Your task to perform on an android device: What's on my calendar tomorrow? Image 0: 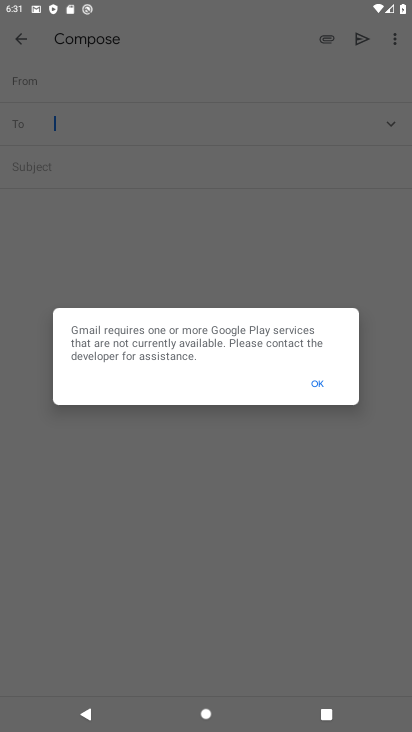
Step 0: press home button
Your task to perform on an android device: What's on my calendar tomorrow? Image 1: 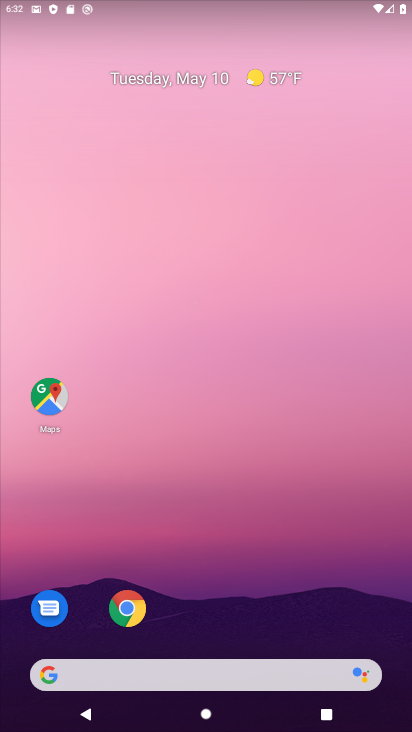
Step 1: drag from (300, 625) to (296, 3)
Your task to perform on an android device: What's on my calendar tomorrow? Image 2: 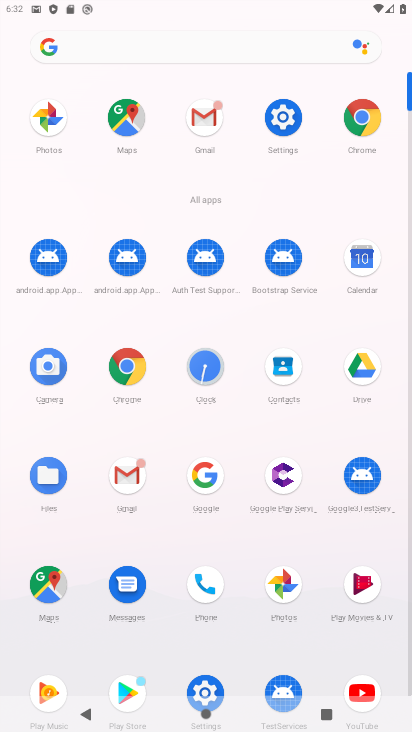
Step 2: click (360, 266)
Your task to perform on an android device: What's on my calendar tomorrow? Image 3: 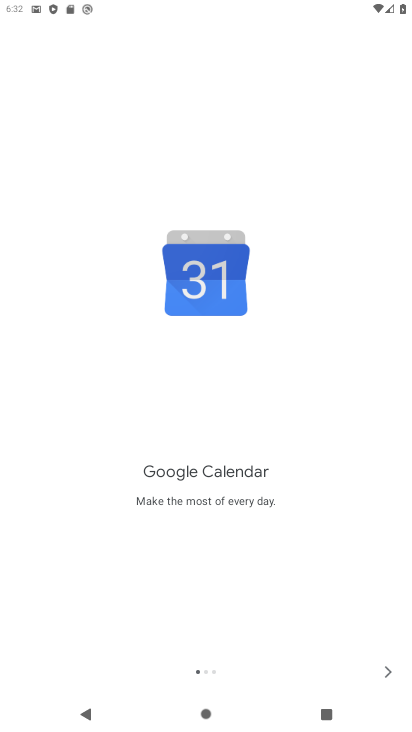
Step 3: click (389, 664)
Your task to perform on an android device: What's on my calendar tomorrow? Image 4: 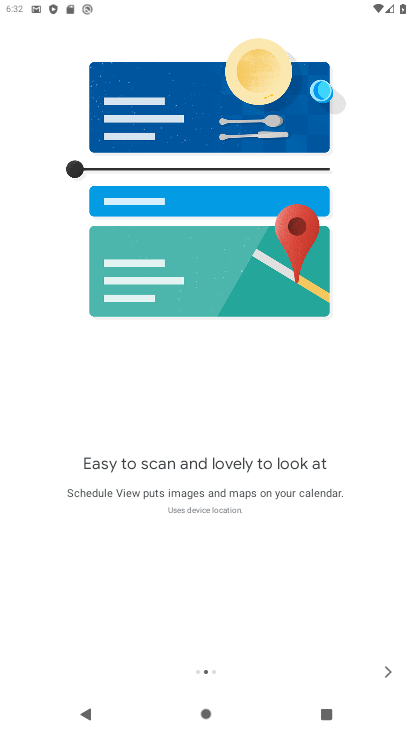
Step 4: click (389, 664)
Your task to perform on an android device: What's on my calendar tomorrow? Image 5: 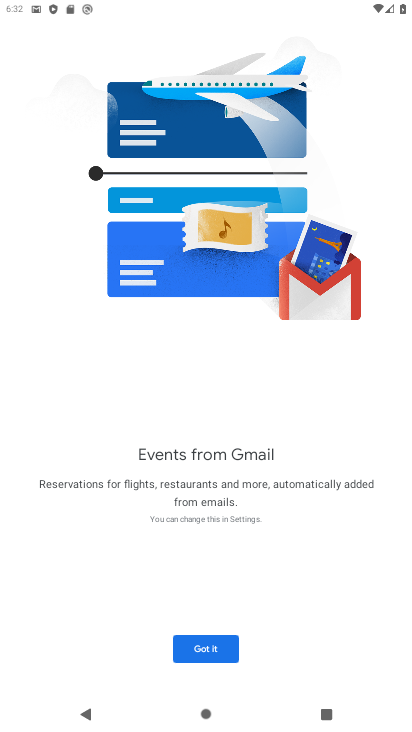
Step 5: click (201, 653)
Your task to perform on an android device: What's on my calendar tomorrow? Image 6: 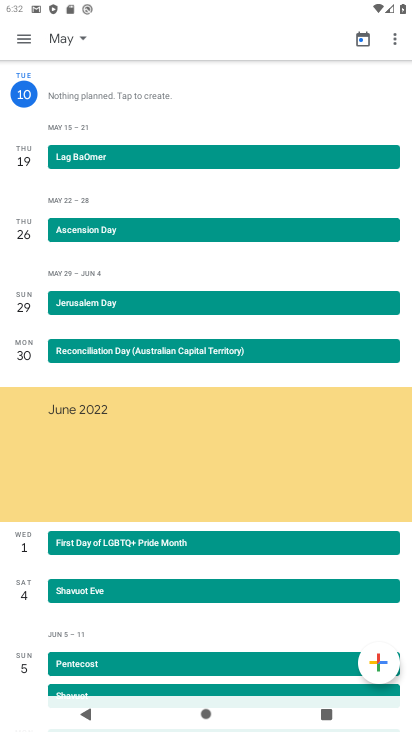
Step 6: click (54, 32)
Your task to perform on an android device: What's on my calendar tomorrow? Image 7: 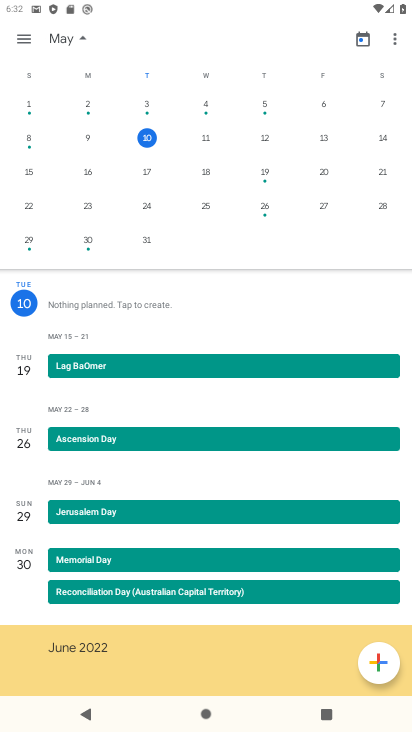
Step 7: click (267, 137)
Your task to perform on an android device: What's on my calendar tomorrow? Image 8: 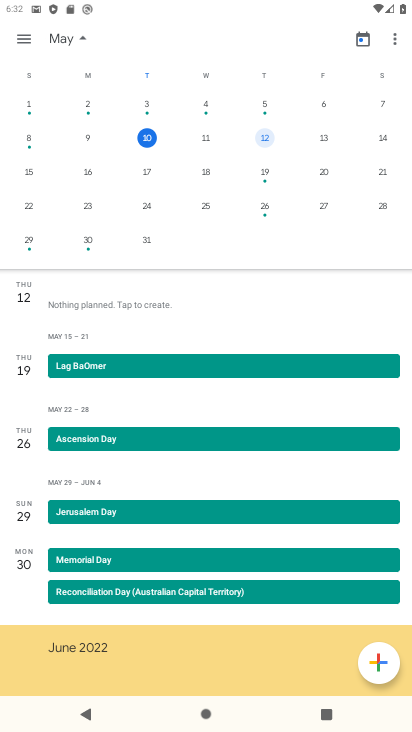
Step 8: task complete